Your task to perform on an android device: turn off notifications in google photos Image 0: 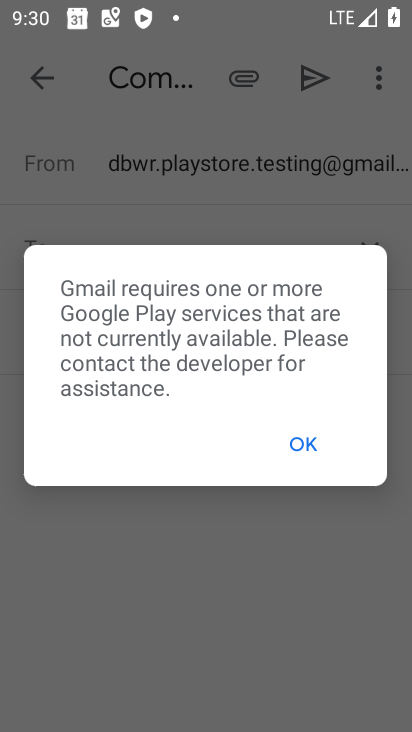
Step 0: press back button
Your task to perform on an android device: turn off notifications in google photos Image 1: 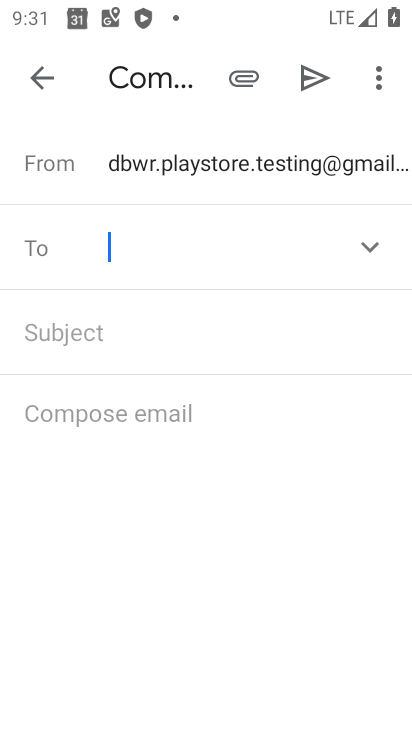
Step 1: press home button
Your task to perform on an android device: turn off notifications in google photos Image 2: 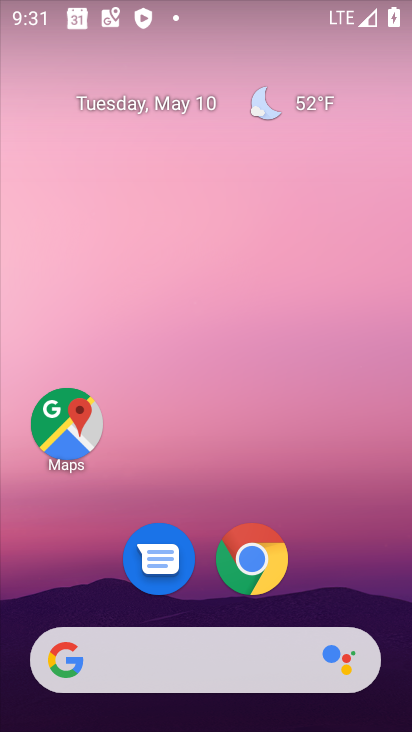
Step 2: drag from (317, 567) to (171, 21)
Your task to perform on an android device: turn off notifications in google photos Image 3: 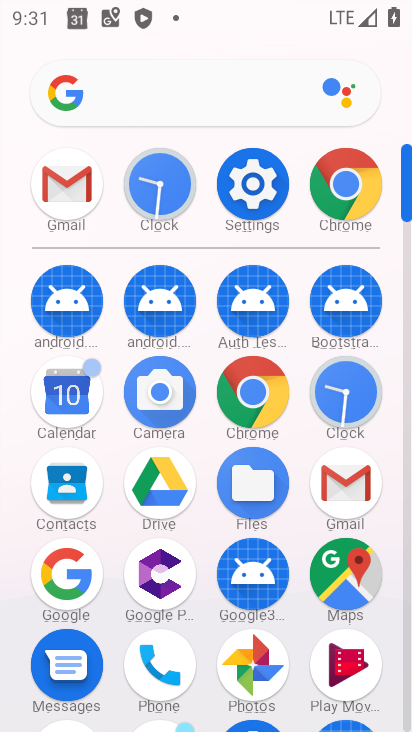
Step 3: drag from (13, 522) to (5, 172)
Your task to perform on an android device: turn off notifications in google photos Image 4: 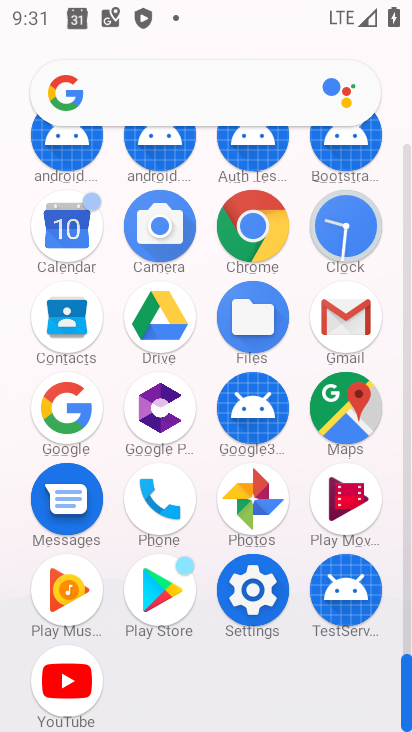
Step 4: click (252, 495)
Your task to perform on an android device: turn off notifications in google photos Image 5: 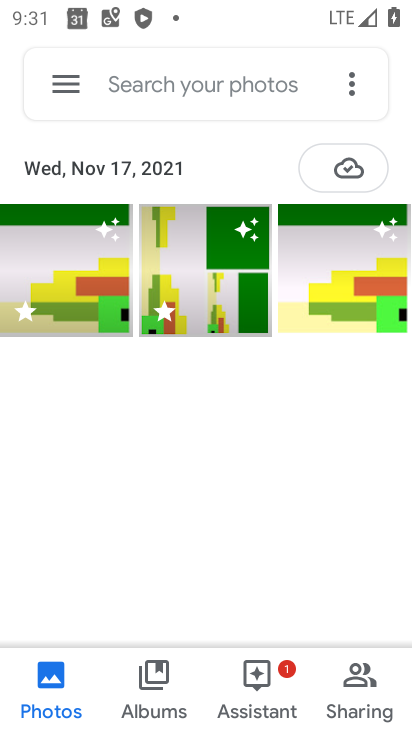
Step 5: click (57, 86)
Your task to perform on an android device: turn off notifications in google photos Image 6: 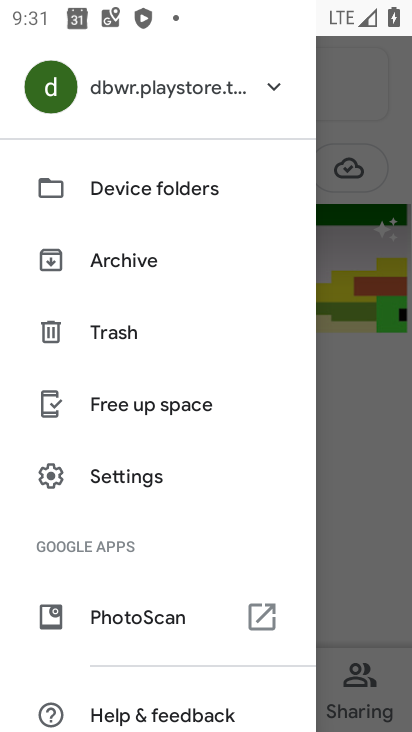
Step 6: click (117, 484)
Your task to perform on an android device: turn off notifications in google photos Image 7: 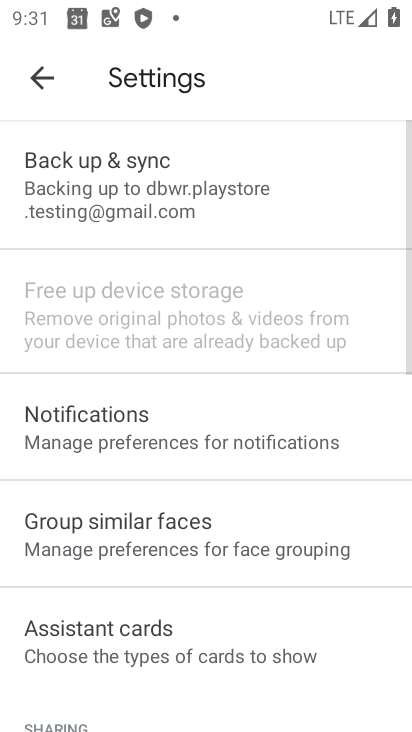
Step 7: click (182, 425)
Your task to perform on an android device: turn off notifications in google photos Image 8: 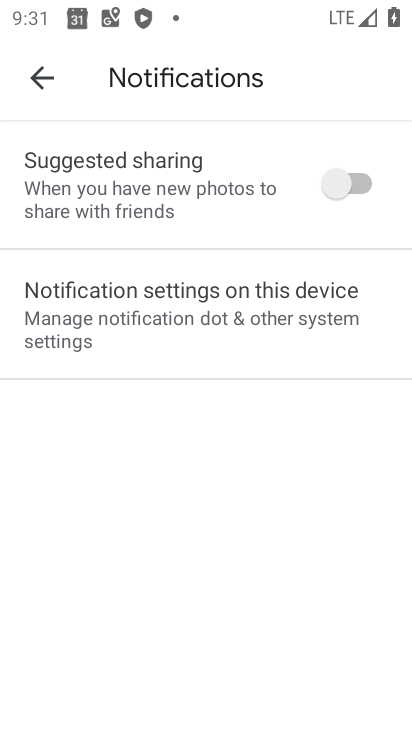
Step 8: click (250, 330)
Your task to perform on an android device: turn off notifications in google photos Image 9: 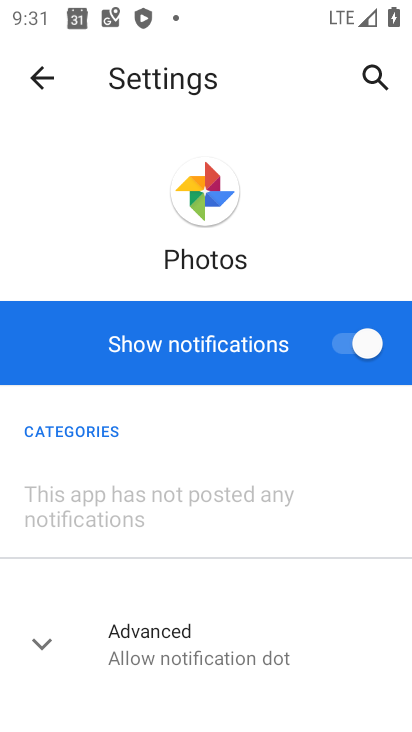
Step 9: click (349, 354)
Your task to perform on an android device: turn off notifications in google photos Image 10: 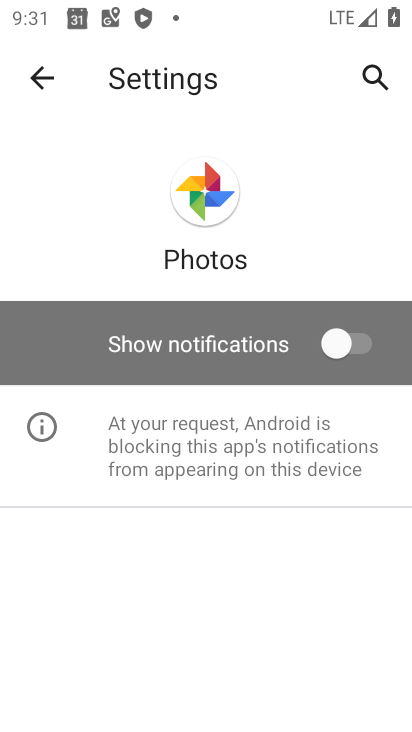
Step 10: task complete